Your task to perform on an android device: toggle javascript in the chrome app Image 0: 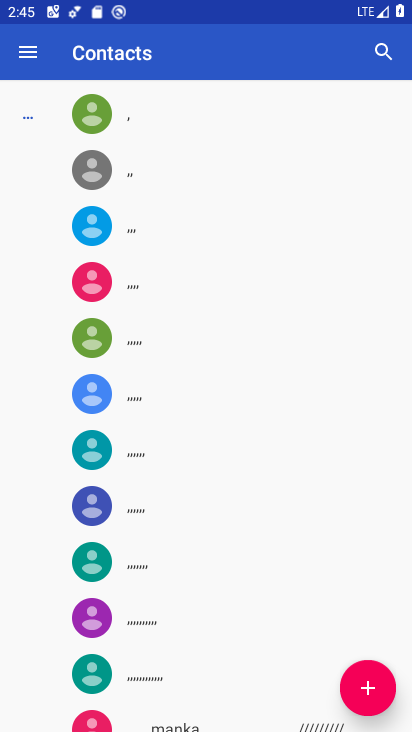
Step 0: press home button
Your task to perform on an android device: toggle javascript in the chrome app Image 1: 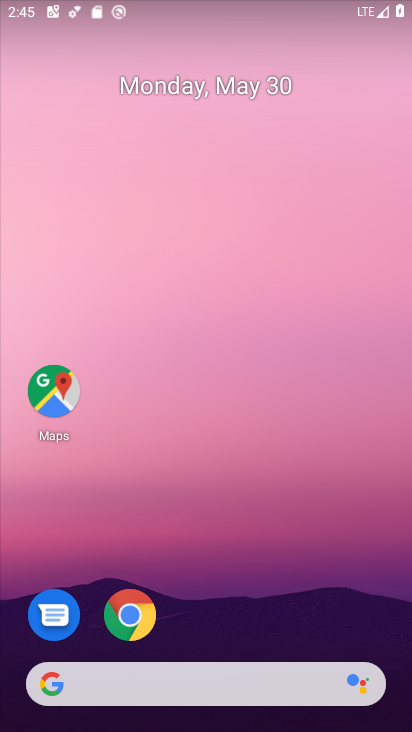
Step 1: click (132, 623)
Your task to perform on an android device: toggle javascript in the chrome app Image 2: 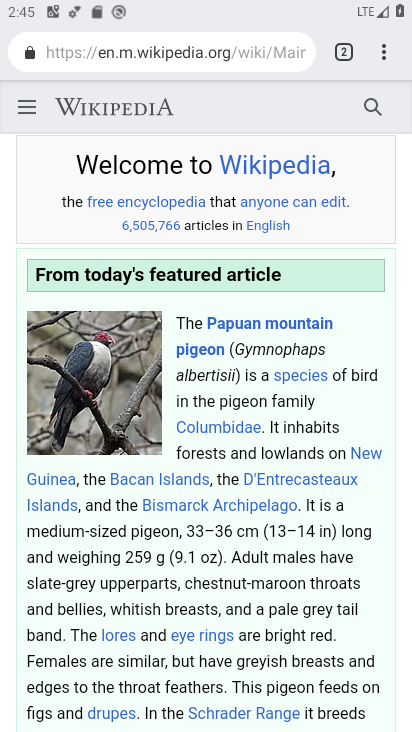
Step 2: click (380, 55)
Your task to perform on an android device: toggle javascript in the chrome app Image 3: 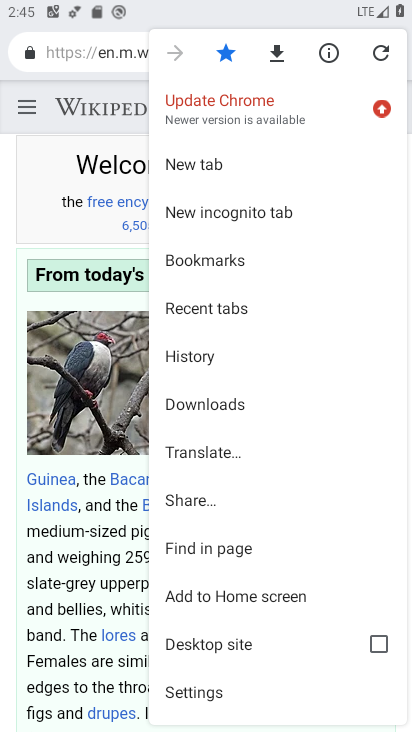
Step 3: click (202, 680)
Your task to perform on an android device: toggle javascript in the chrome app Image 4: 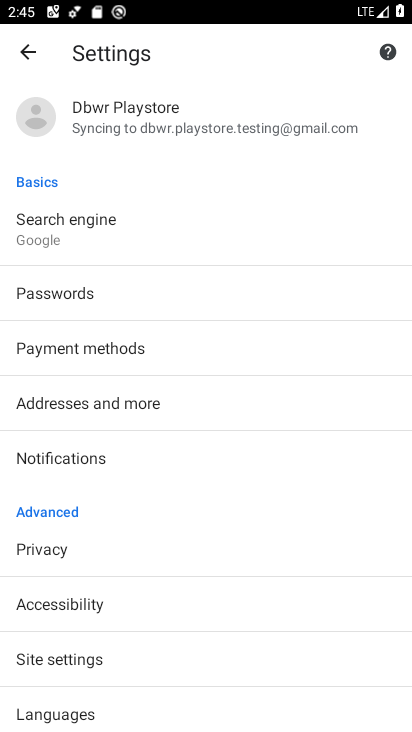
Step 4: click (202, 659)
Your task to perform on an android device: toggle javascript in the chrome app Image 5: 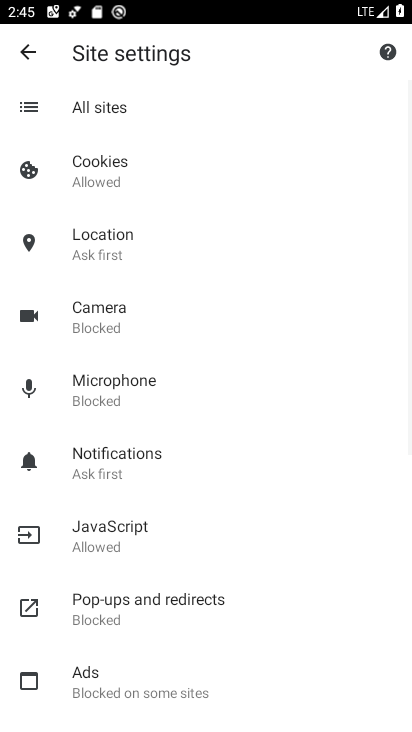
Step 5: click (170, 540)
Your task to perform on an android device: toggle javascript in the chrome app Image 6: 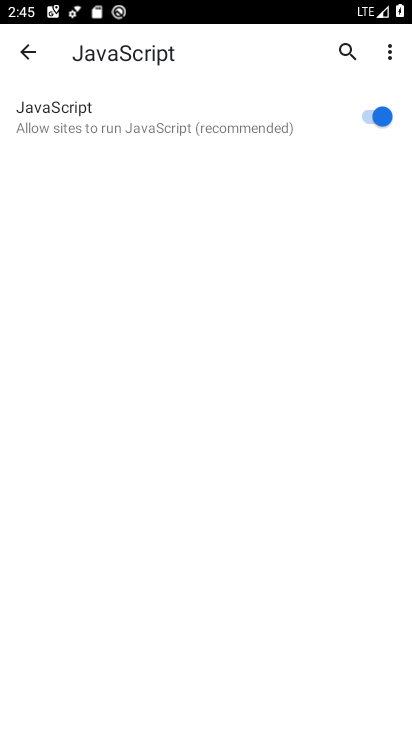
Step 6: click (381, 116)
Your task to perform on an android device: toggle javascript in the chrome app Image 7: 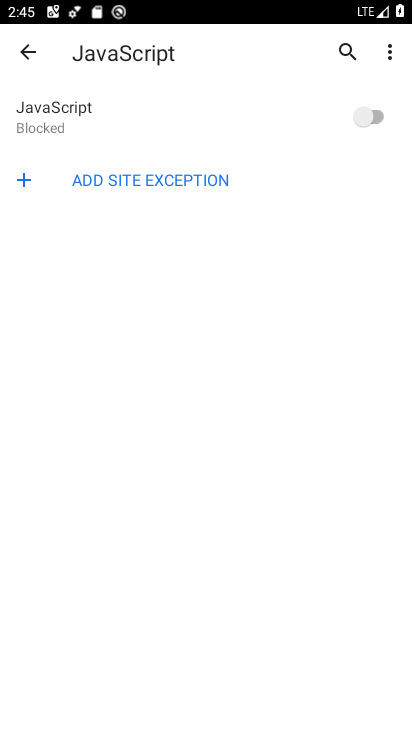
Step 7: task complete